Your task to perform on an android device: open a bookmark in the chrome app Image 0: 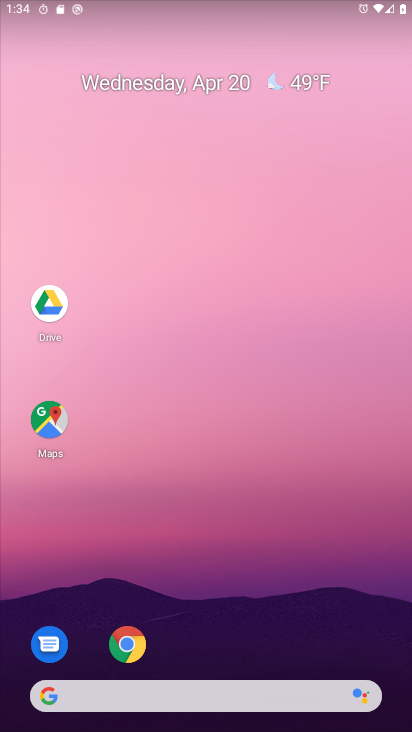
Step 0: click (126, 639)
Your task to perform on an android device: open a bookmark in the chrome app Image 1: 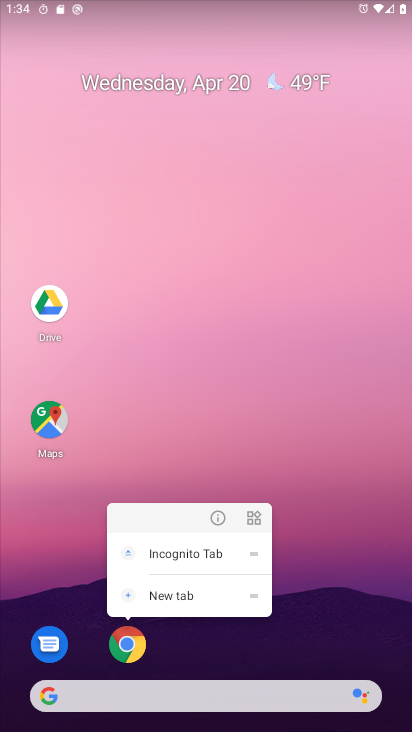
Step 1: click (133, 652)
Your task to perform on an android device: open a bookmark in the chrome app Image 2: 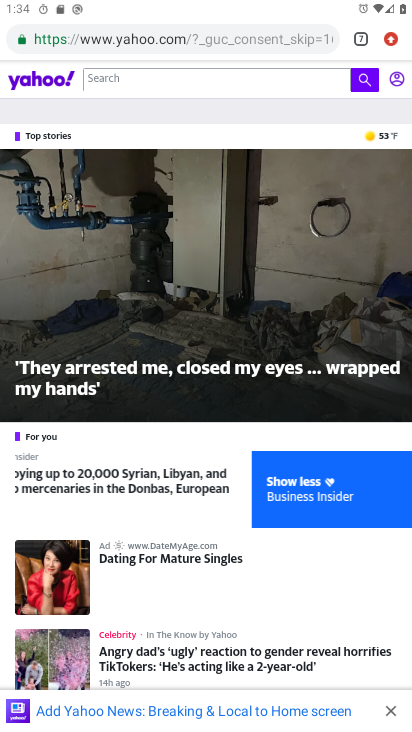
Step 2: click (391, 34)
Your task to perform on an android device: open a bookmark in the chrome app Image 3: 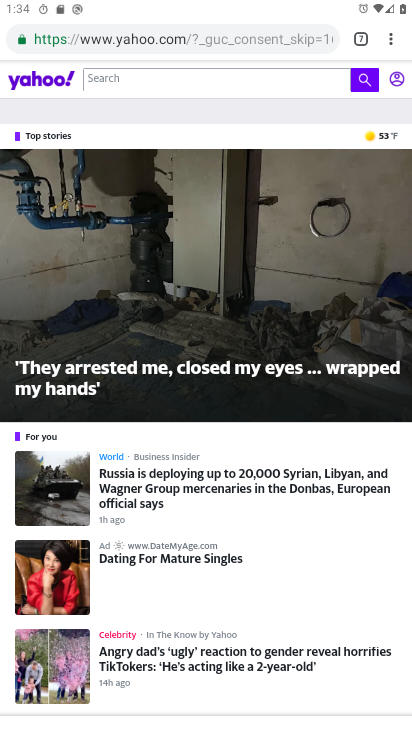
Step 3: click (391, 34)
Your task to perform on an android device: open a bookmark in the chrome app Image 4: 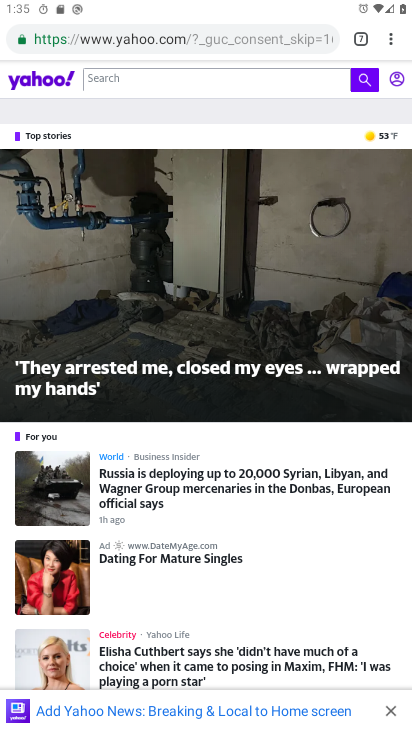
Step 4: click (389, 40)
Your task to perform on an android device: open a bookmark in the chrome app Image 5: 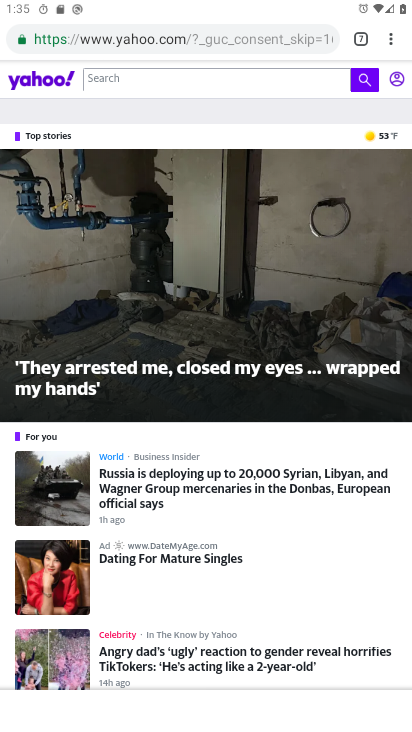
Step 5: click (389, 40)
Your task to perform on an android device: open a bookmark in the chrome app Image 6: 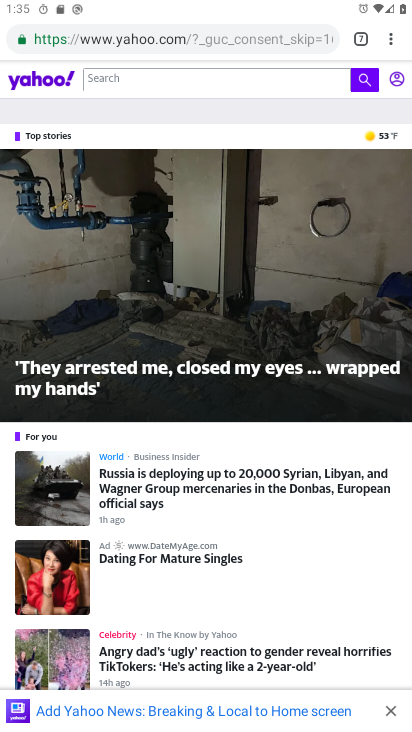
Step 6: click (389, 40)
Your task to perform on an android device: open a bookmark in the chrome app Image 7: 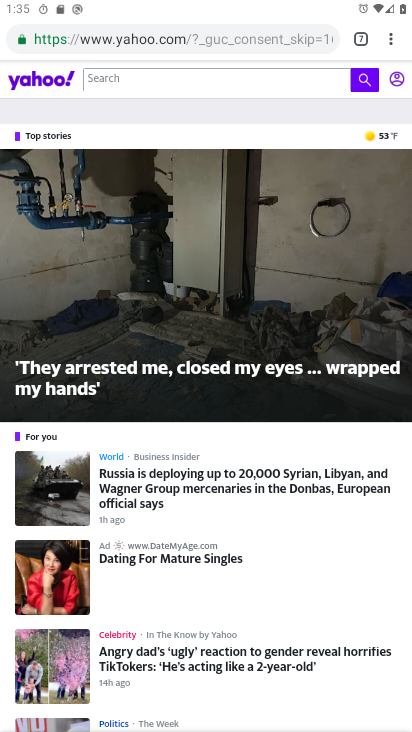
Step 7: click (389, 40)
Your task to perform on an android device: open a bookmark in the chrome app Image 8: 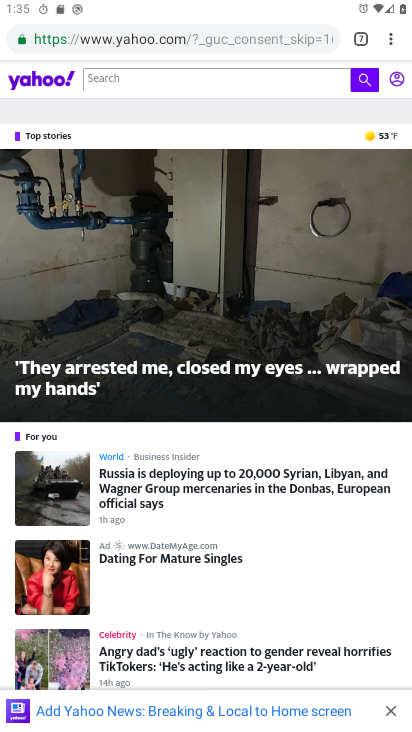
Step 8: click (389, 40)
Your task to perform on an android device: open a bookmark in the chrome app Image 9: 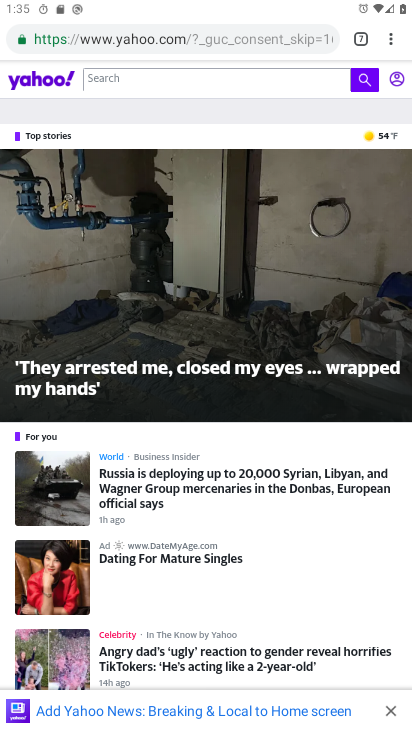
Step 9: click (389, 40)
Your task to perform on an android device: open a bookmark in the chrome app Image 10: 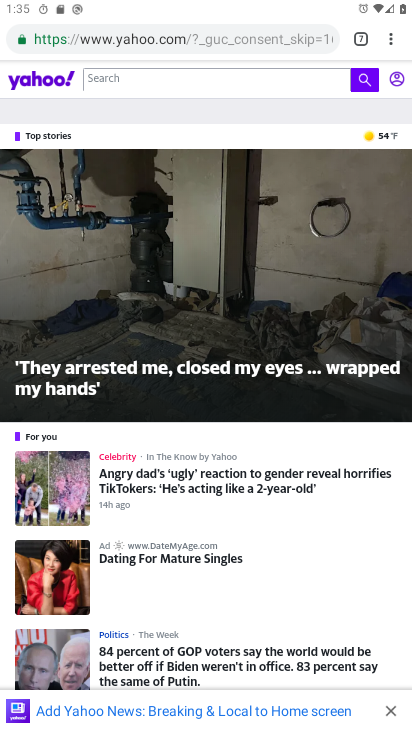
Step 10: click (389, 40)
Your task to perform on an android device: open a bookmark in the chrome app Image 11: 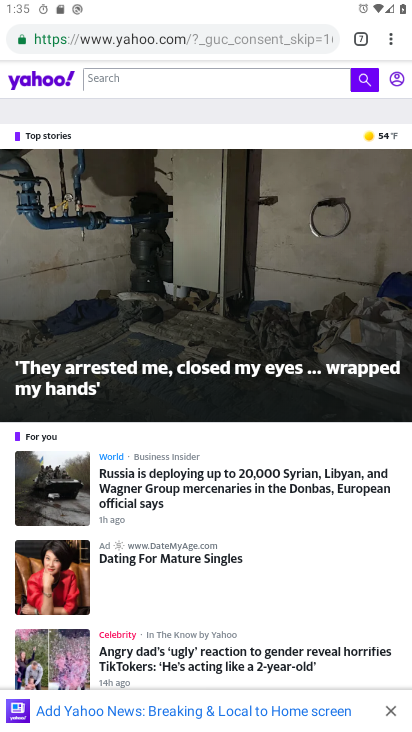
Step 11: click (389, 40)
Your task to perform on an android device: open a bookmark in the chrome app Image 12: 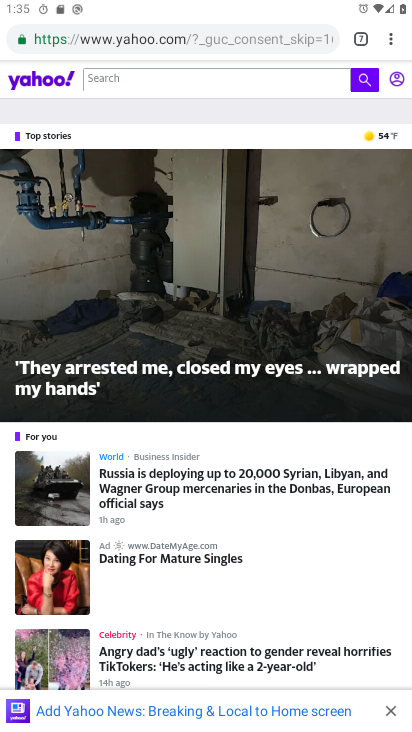
Step 12: click (388, 39)
Your task to perform on an android device: open a bookmark in the chrome app Image 13: 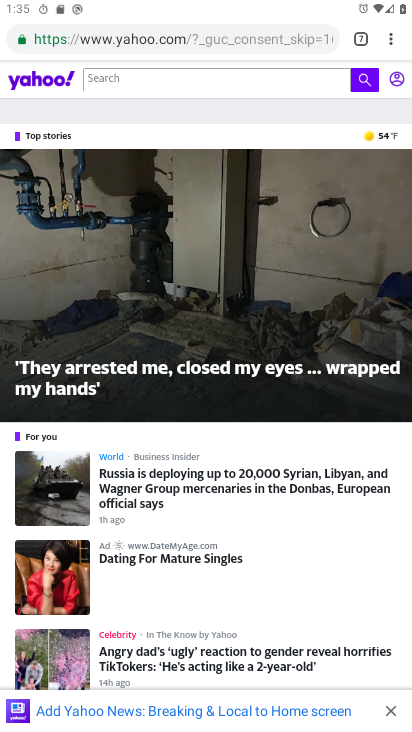
Step 13: click (389, 44)
Your task to perform on an android device: open a bookmark in the chrome app Image 14: 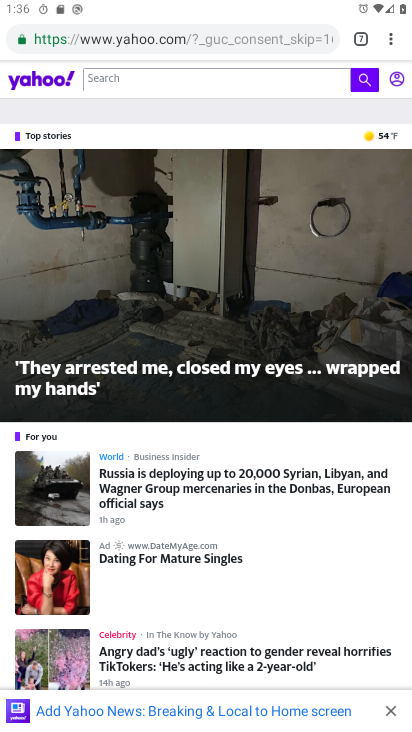
Step 14: click (390, 35)
Your task to perform on an android device: open a bookmark in the chrome app Image 15: 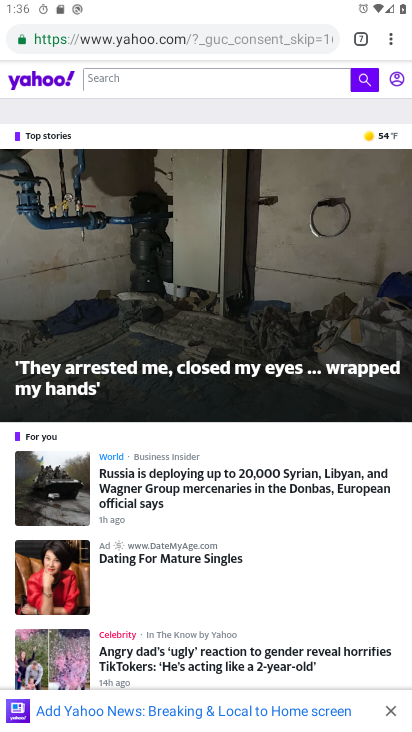
Step 15: click (386, 36)
Your task to perform on an android device: open a bookmark in the chrome app Image 16: 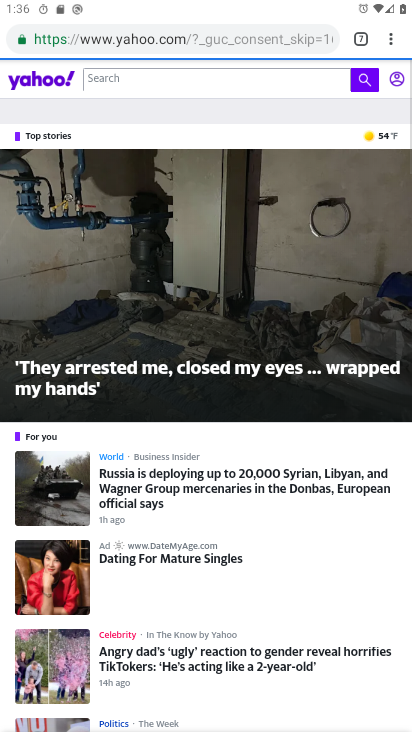
Step 16: click (386, 36)
Your task to perform on an android device: open a bookmark in the chrome app Image 17: 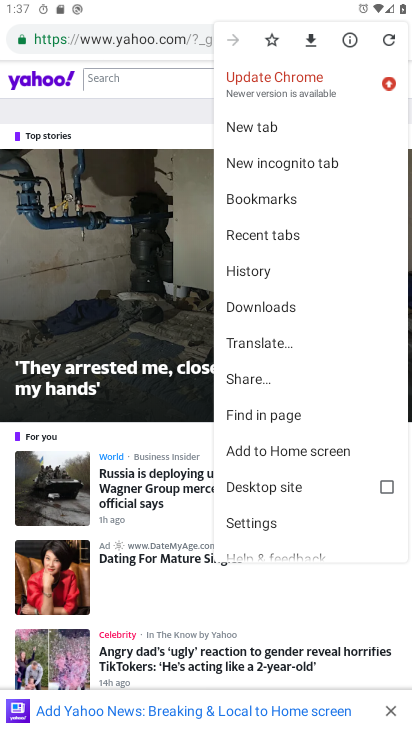
Step 17: click (276, 194)
Your task to perform on an android device: open a bookmark in the chrome app Image 18: 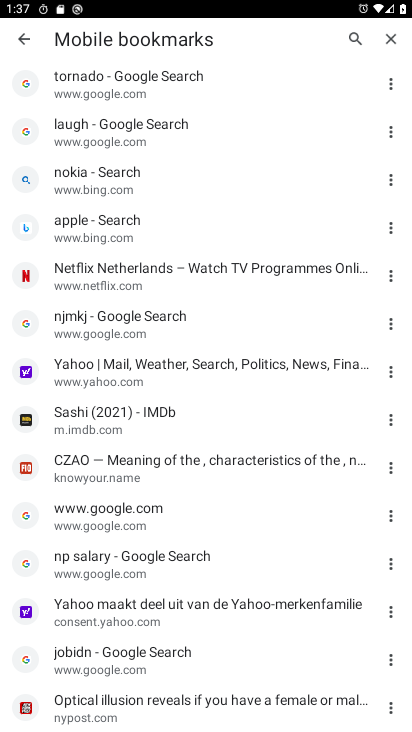
Step 18: click (141, 363)
Your task to perform on an android device: open a bookmark in the chrome app Image 19: 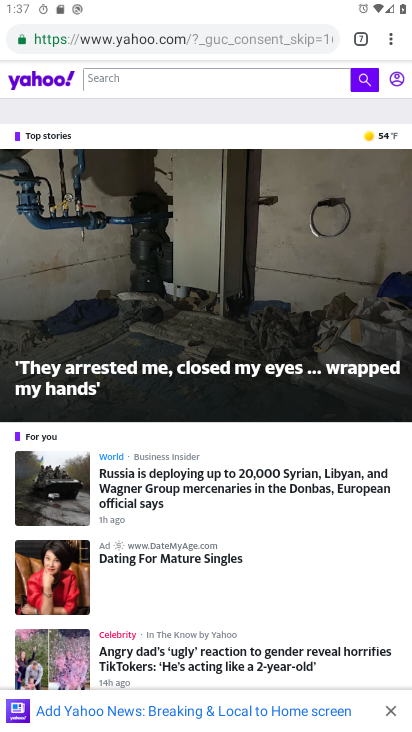
Step 19: task complete